Your task to perform on an android device: Open location settings Image 0: 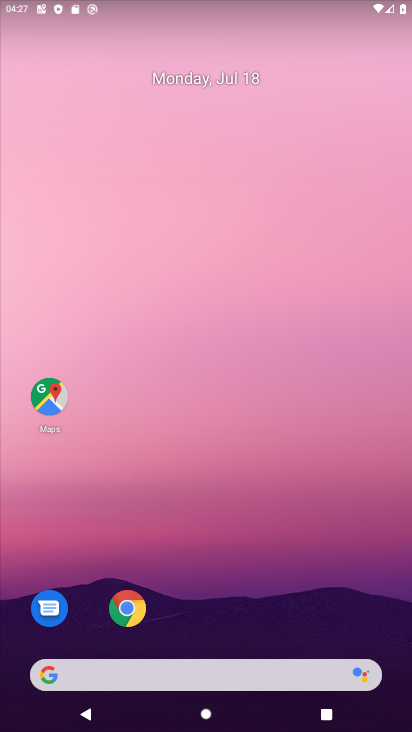
Step 0: drag from (242, 629) to (204, 4)
Your task to perform on an android device: Open location settings Image 1: 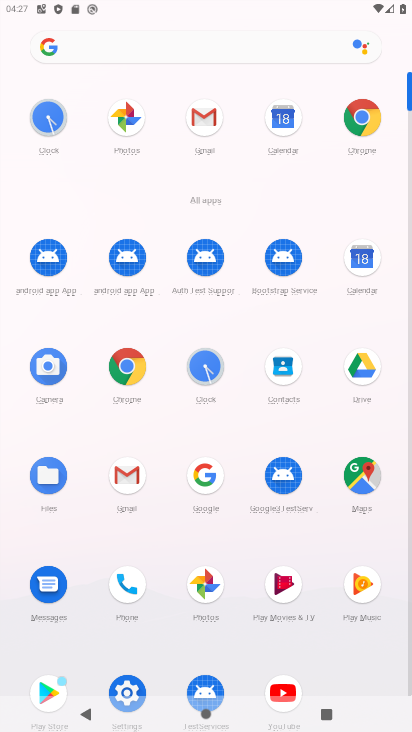
Step 1: click (121, 681)
Your task to perform on an android device: Open location settings Image 2: 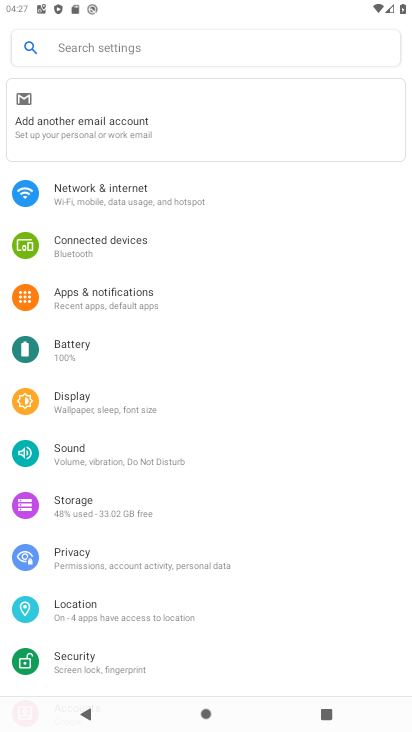
Step 2: click (74, 603)
Your task to perform on an android device: Open location settings Image 3: 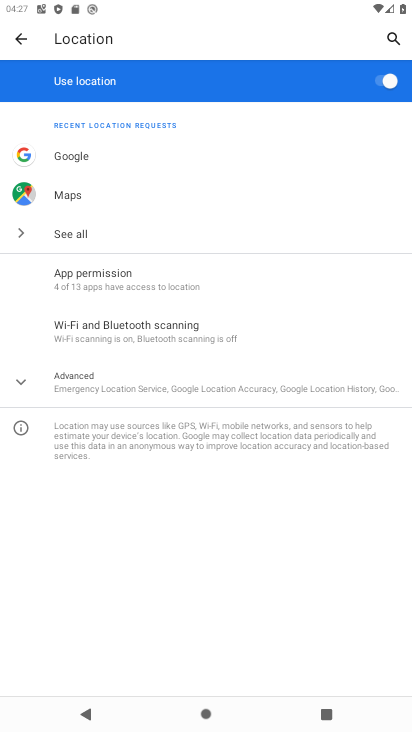
Step 3: task complete